Your task to perform on an android device: turn off wifi Image 0: 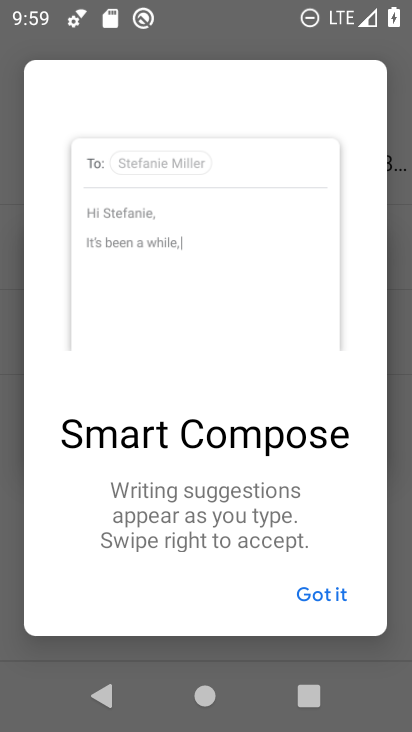
Step 0: press home button
Your task to perform on an android device: turn off wifi Image 1: 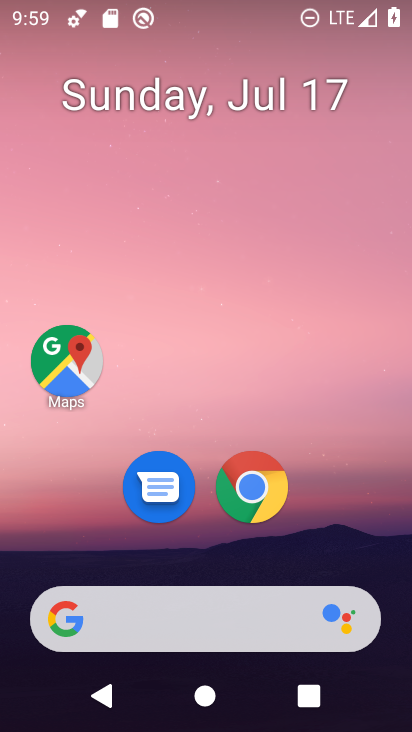
Step 1: task complete